Your task to perform on an android device: turn off picture-in-picture Image 0: 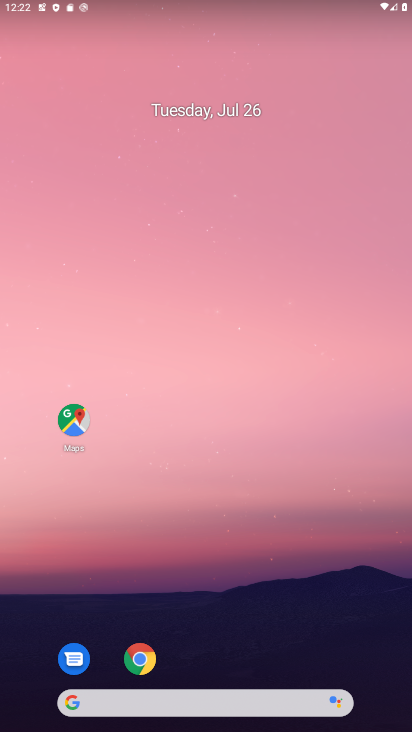
Step 0: drag from (205, 642) to (174, 337)
Your task to perform on an android device: turn off picture-in-picture Image 1: 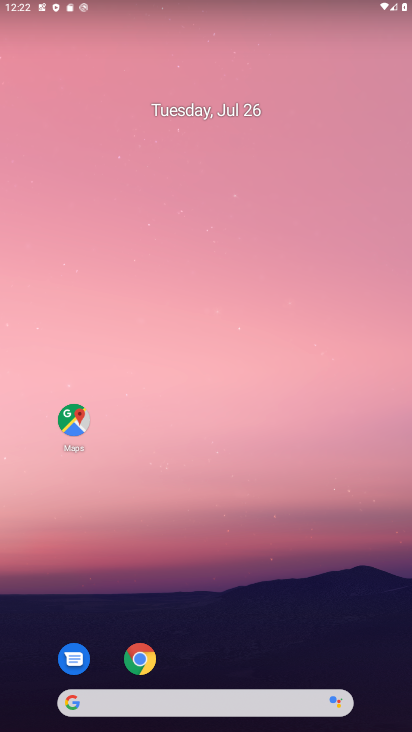
Step 1: drag from (188, 627) to (213, 343)
Your task to perform on an android device: turn off picture-in-picture Image 2: 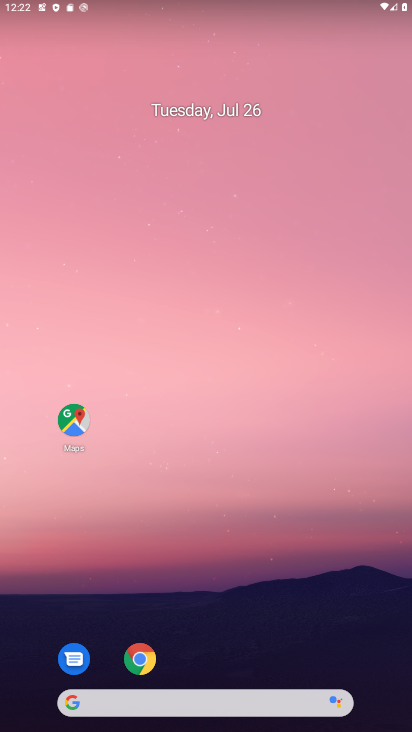
Step 2: drag from (203, 651) to (167, 346)
Your task to perform on an android device: turn off picture-in-picture Image 3: 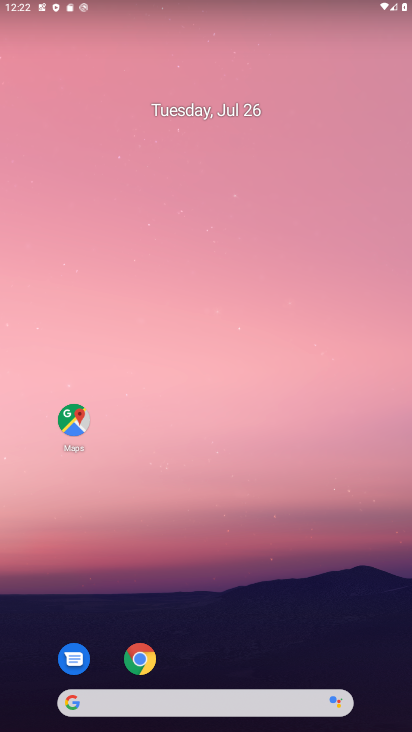
Step 3: drag from (194, 664) to (308, 86)
Your task to perform on an android device: turn off picture-in-picture Image 4: 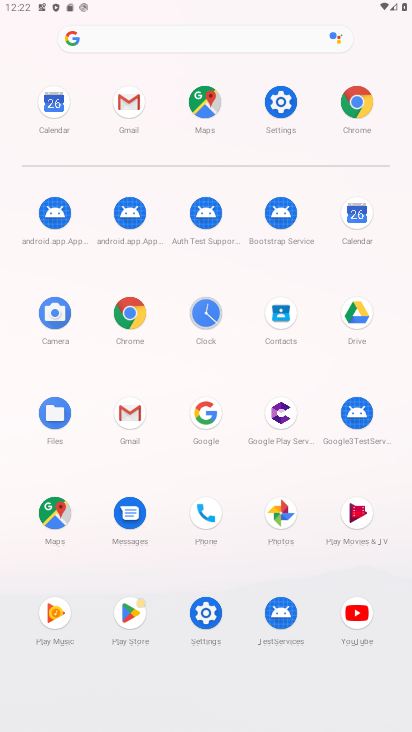
Step 4: click (272, 91)
Your task to perform on an android device: turn off picture-in-picture Image 5: 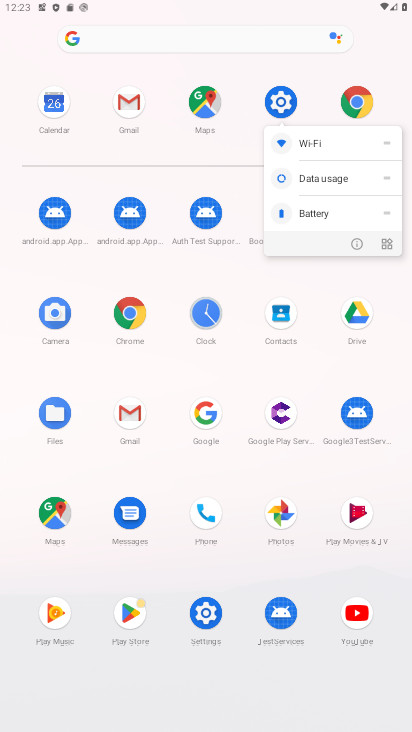
Step 5: click (356, 237)
Your task to perform on an android device: turn off picture-in-picture Image 6: 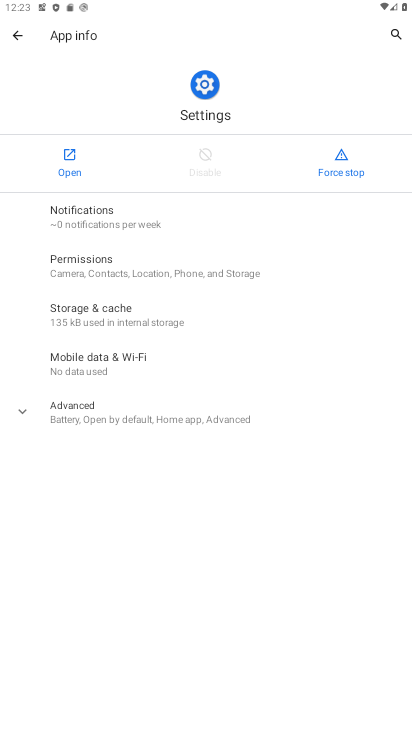
Step 6: click (71, 155)
Your task to perform on an android device: turn off picture-in-picture Image 7: 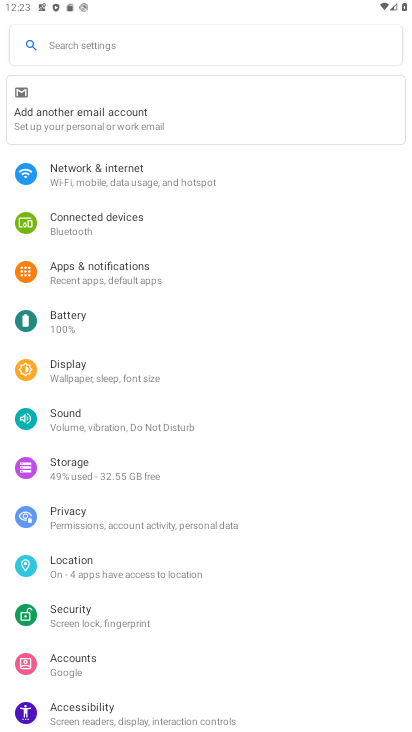
Step 7: click (104, 266)
Your task to perform on an android device: turn off picture-in-picture Image 8: 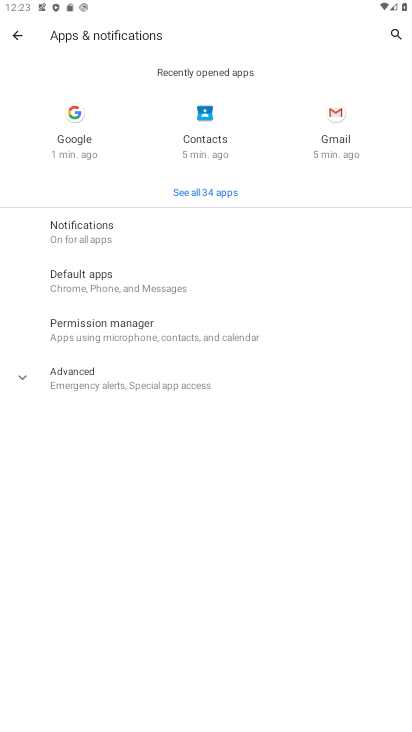
Step 8: click (87, 234)
Your task to perform on an android device: turn off picture-in-picture Image 9: 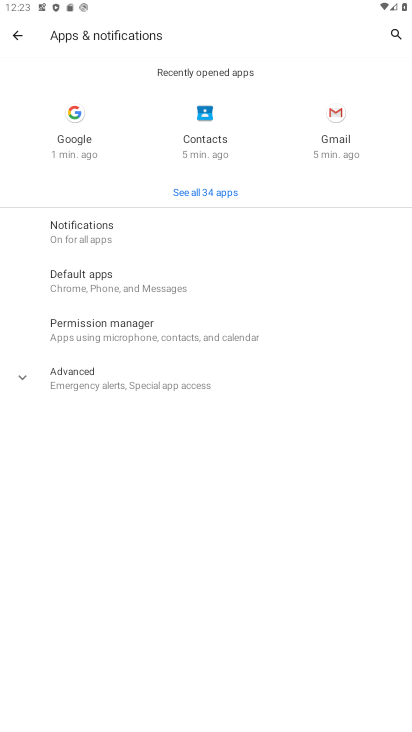
Step 9: click (87, 233)
Your task to perform on an android device: turn off picture-in-picture Image 10: 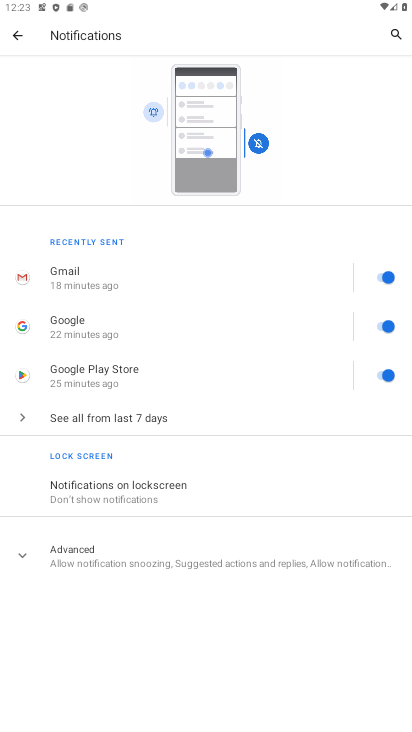
Step 10: click (18, 33)
Your task to perform on an android device: turn off picture-in-picture Image 11: 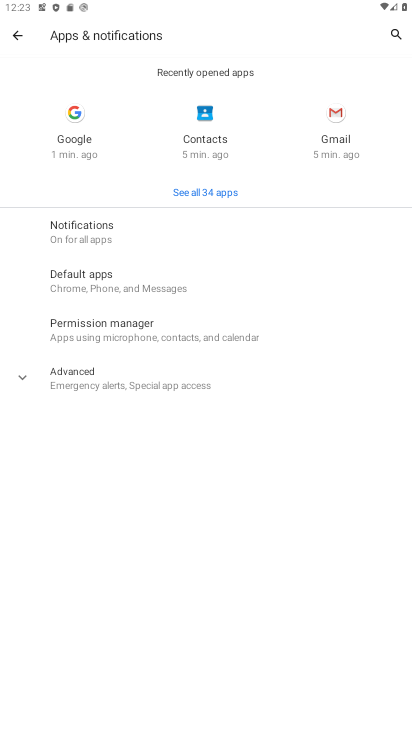
Step 11: click (140, 385)
Your task to perform on an android device: turn off picture-in-picture Image 12: 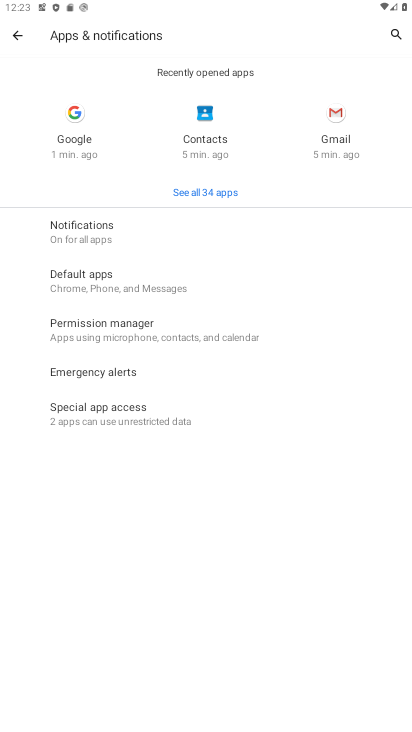
Step 12: click (117, 407)
Your task to perform on an android device: turn off picture-in-picture Image 13: 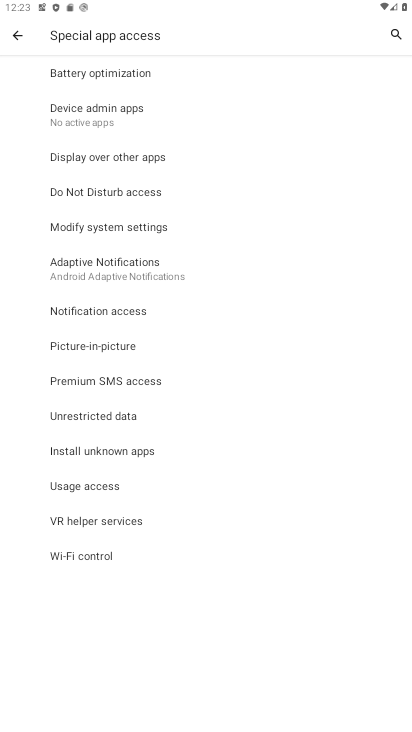
Step 13: click (124, 348)
Your task to perform on an android device: turn off picture-in-picture Image 14: 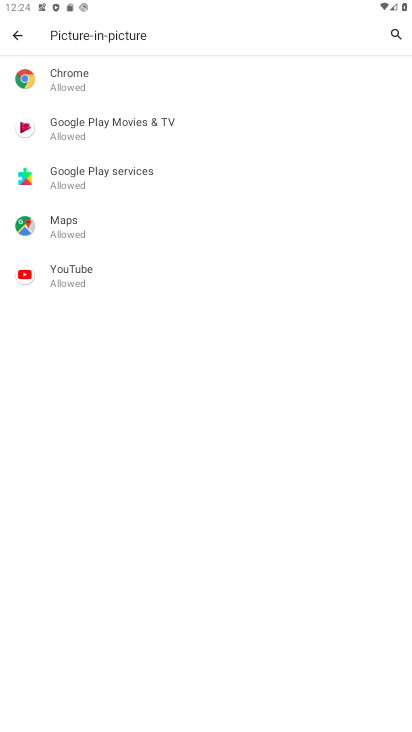
Step 14: click (80, 64)
Your task to perform on an android device: turn off picture-in-picture Image 15: 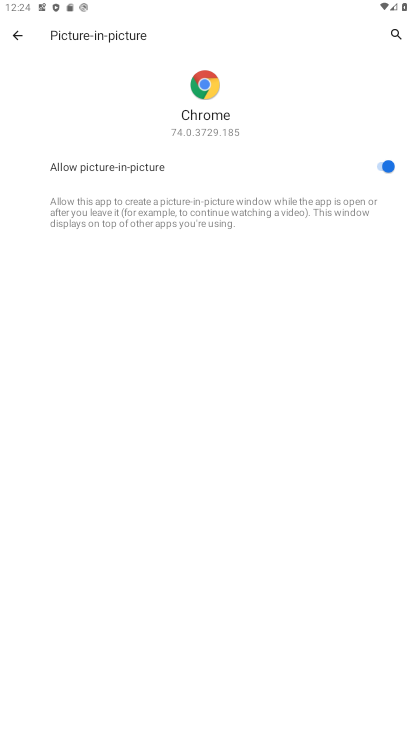
Step 15: click (383, 162)
Your task to perform on an android device: turn off picture-in-picture Image 16: 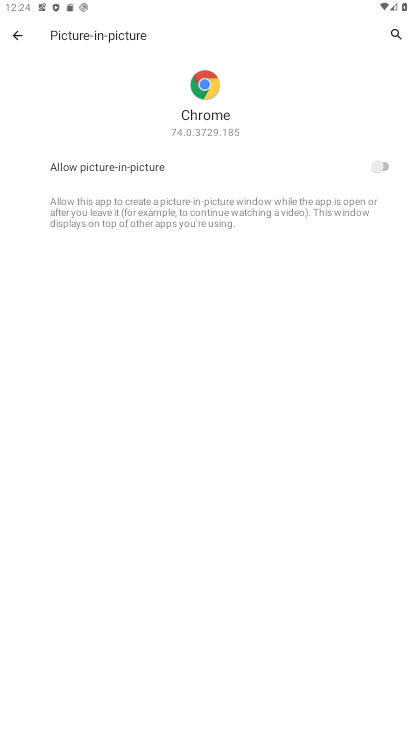
Step 16: task complete